Your task to perform on an android device: change notifications settings Image 0: 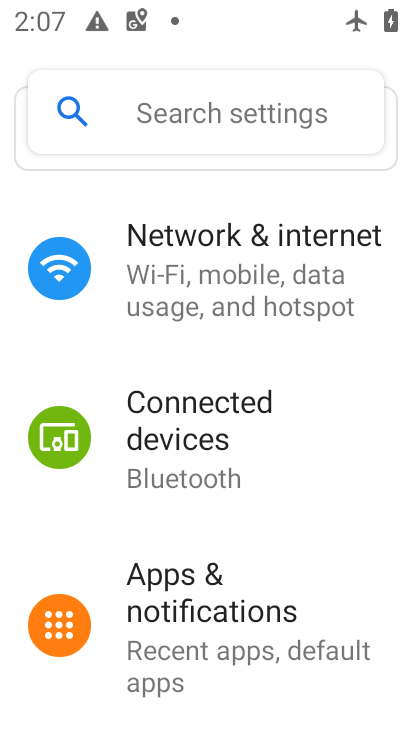
Step 0: click (299, 611)
Your task to perform on an android device: change notifications settings Image 1: 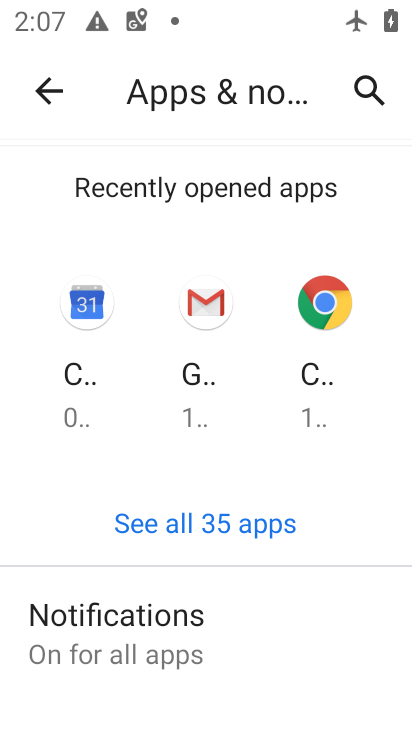
Step 1: click (224, 643)
Your task to perform on an android device: change notifications settings Image 2: 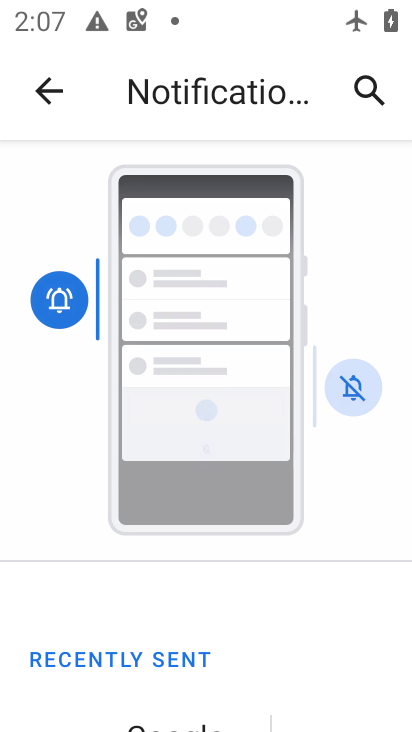
Step 2: drag from (264, 666) to (220, 257)
Your task to perform on an android device: change notifications settings Image 3: 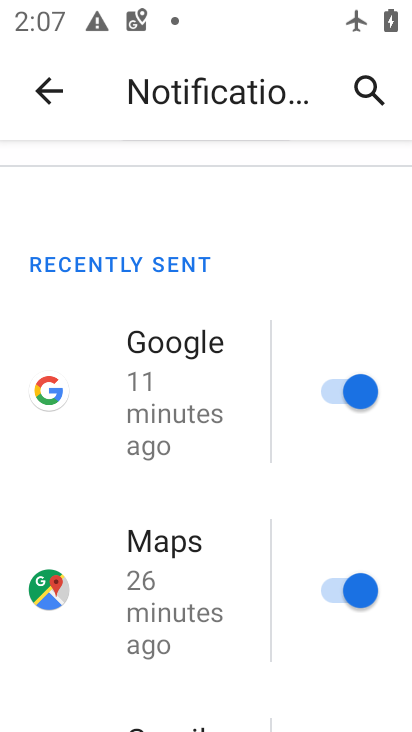
Step 3: drag from (283, 683) to (225, 220)
Your task to perform on an android device: change notifications settings Image 4: 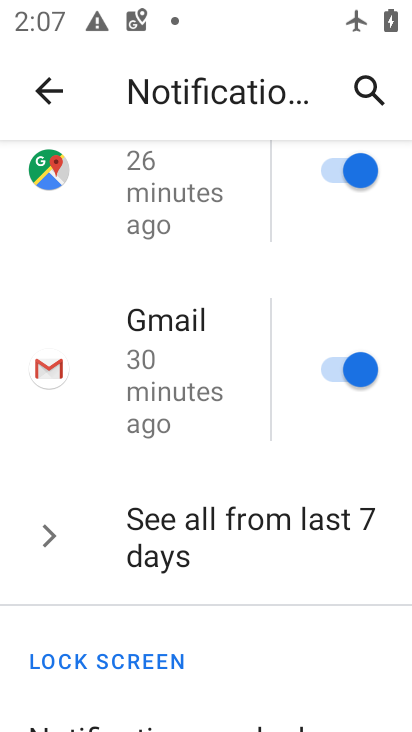
Step 4: drag from (246, 678) to (175, 102)
Your task to perform on an android device: change notifications settings Image 5: 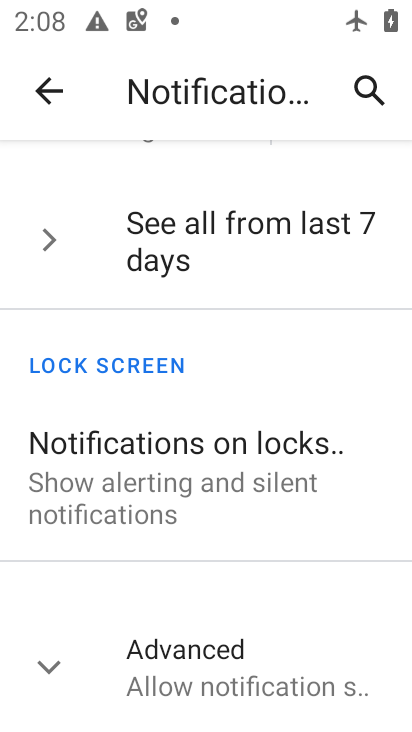
Step 5: click (179, 689)
Your task to perform on an android device: change notifications settings Image 6: 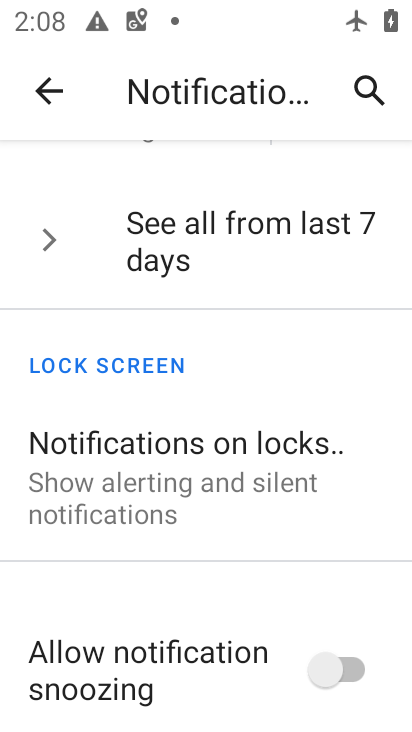
Step 6: drag from (179, 689) to (182, 244)
Your task to perform on an android device: change notifications settings Image 7: 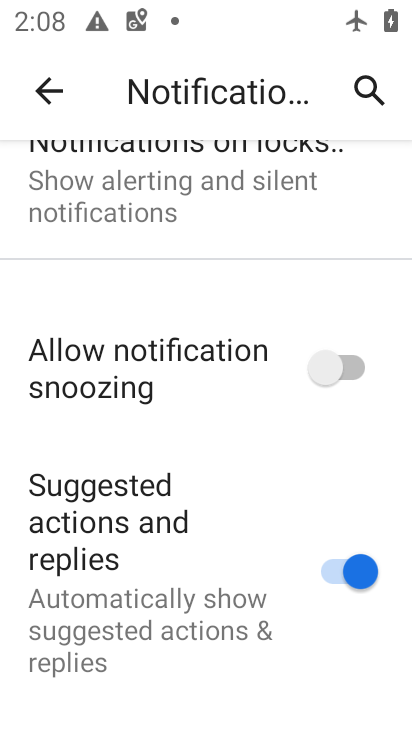
Step 7: click (343, 357)
Your task to perform on an android device: change notifications settings Image 8: 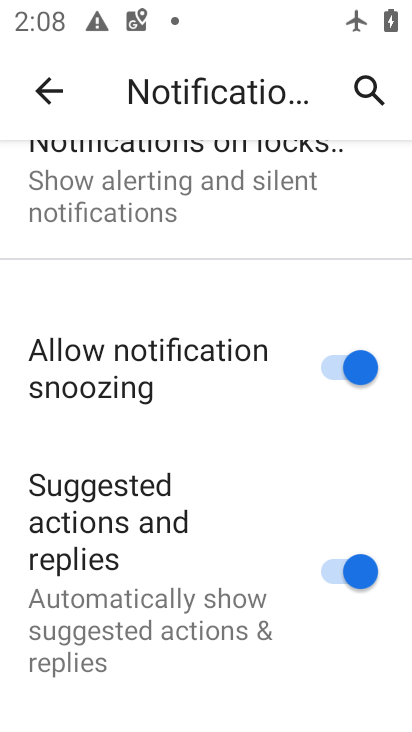
Step 8: click (352, 567)
Your task to perform on an android device: change notifications settings Image 9: 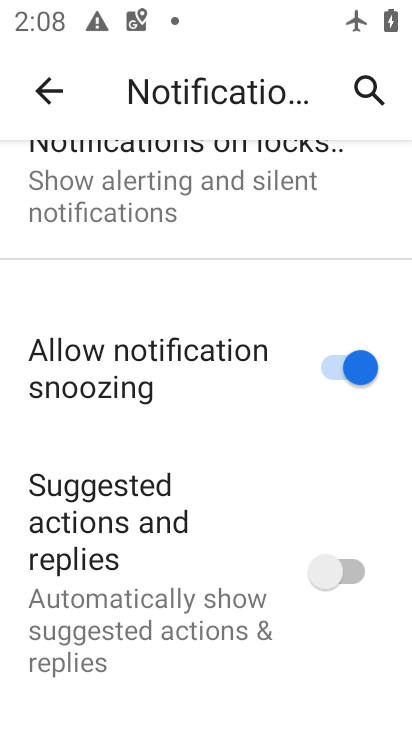
Step 9: task complete